Your task to perform on an android device: turn off picture-in-picture Image 0: 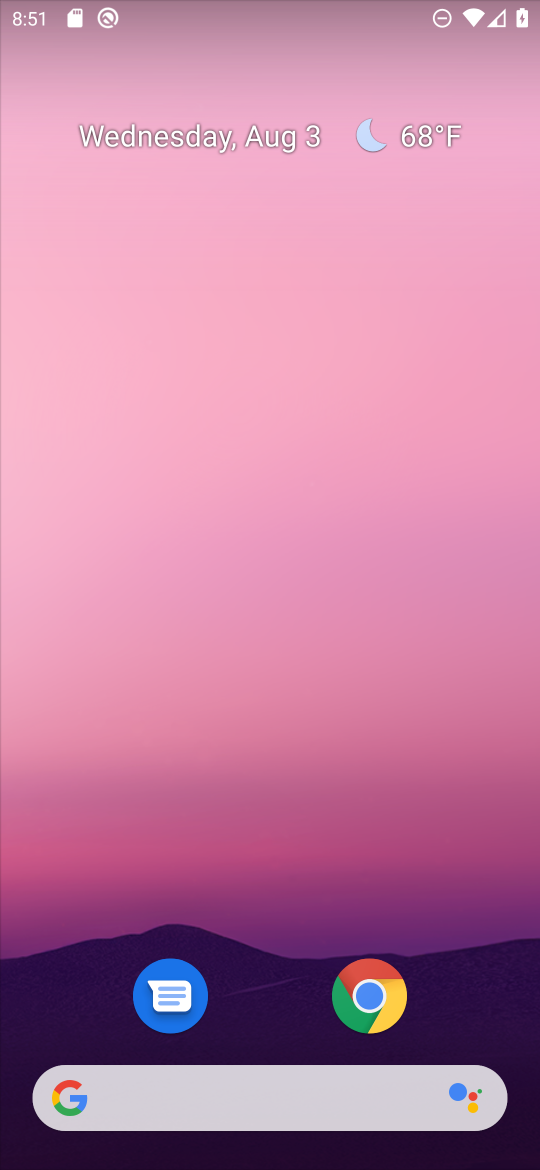
Step 0: click (370, 1006)
Your task to perform on an android device: turn off picture-in-picture Image 1: 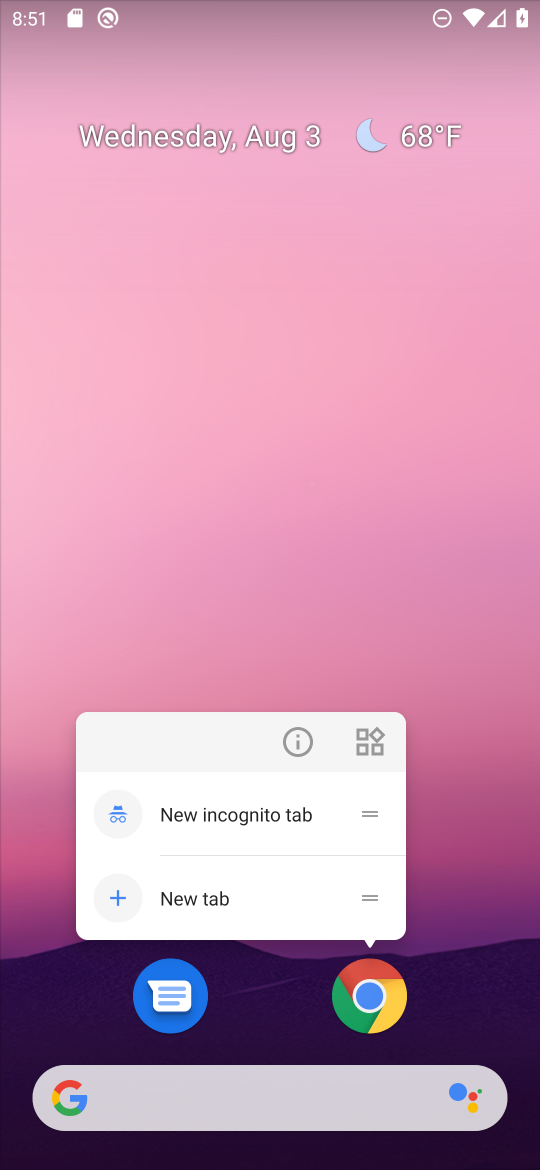
Step 1: click (292, 732)
Your task to perform on an android device: turn off picture-in-picture Image 2: 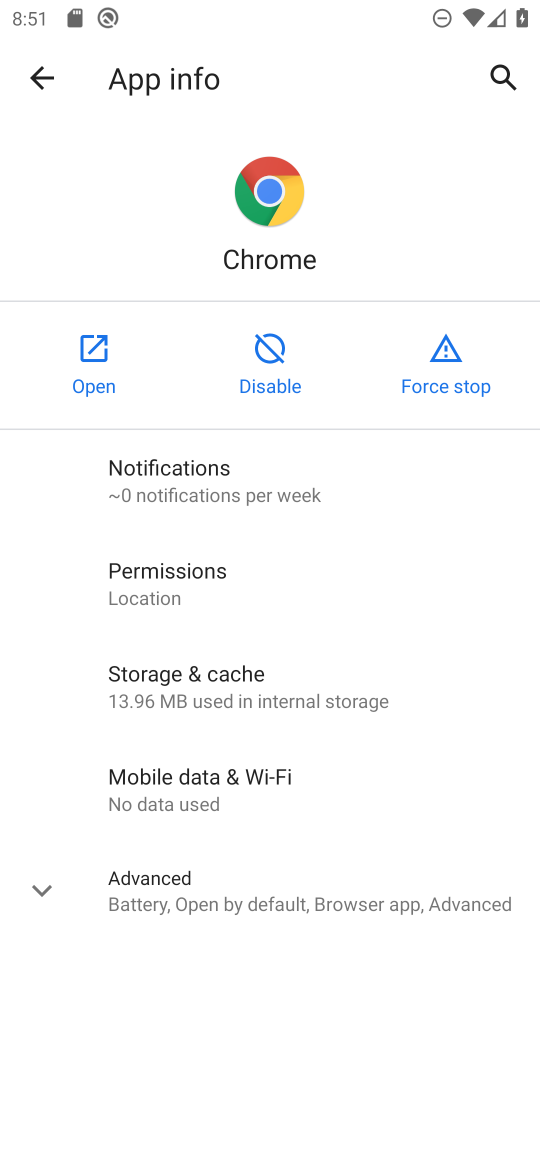
Step 2: click (47, 887)
Your task to perform on an android device: turn off picture-in-picture Image 3: 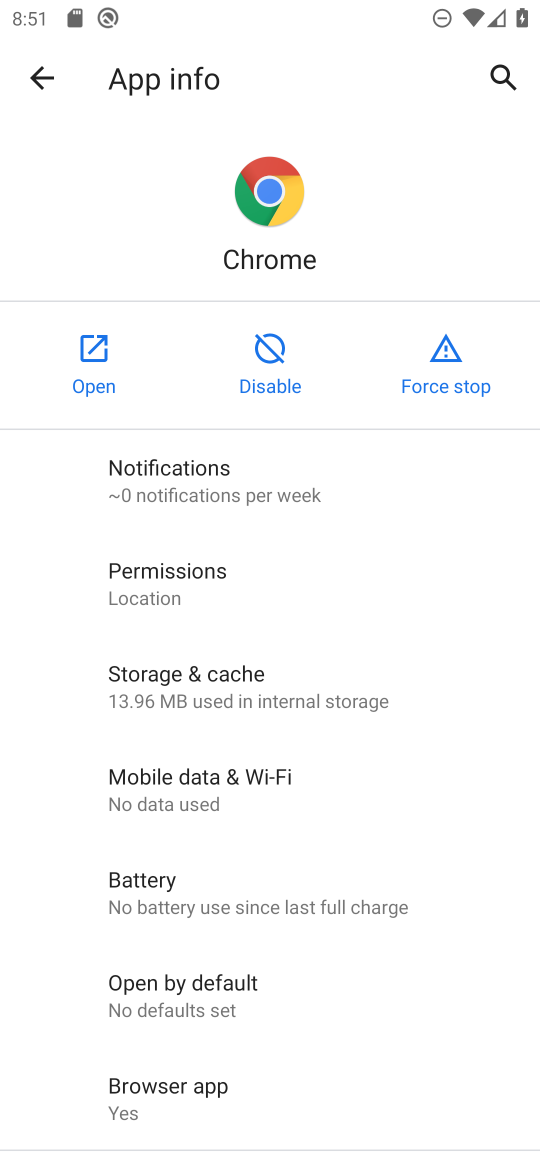
Step 3: drag from (334, 843) to (286, 349)
Your task to perform on an android device: turn off picture-in-picture Image 4: 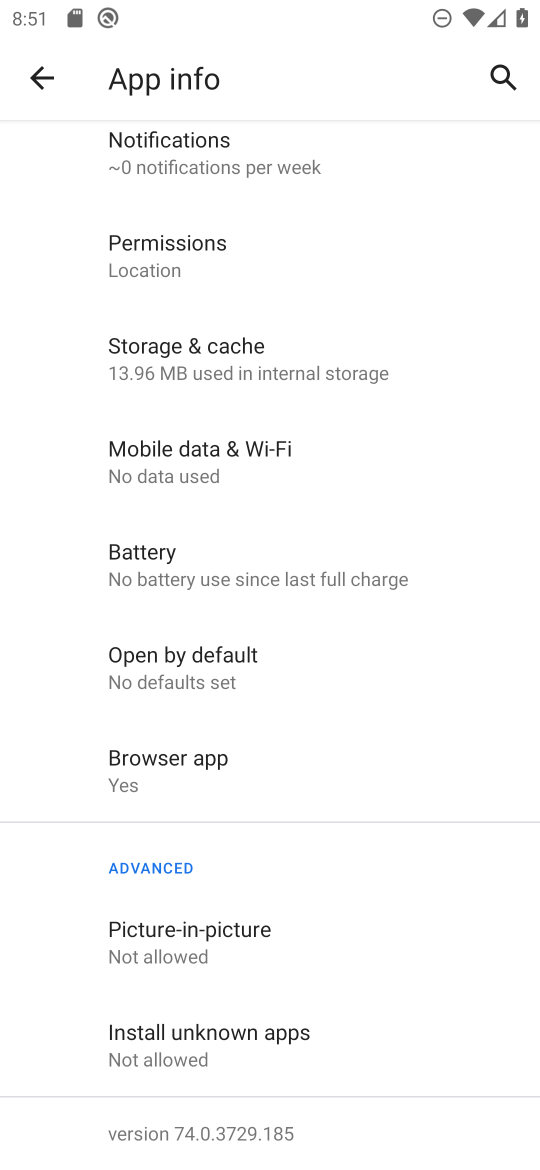
Step 4: click (249, 947)
Your task to perform on an android device: turn off picture-in-picture Image 5: 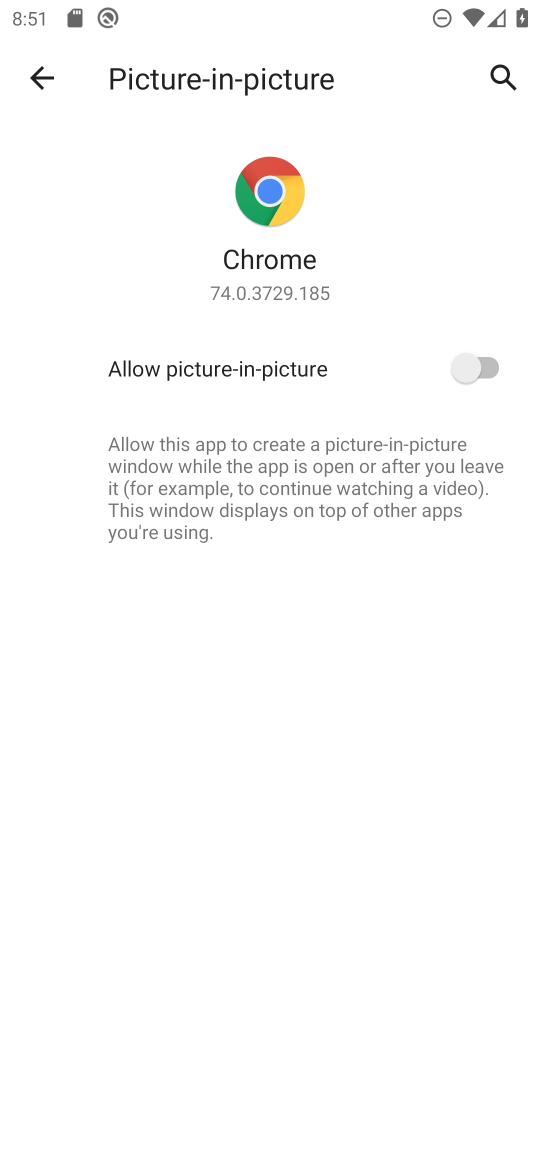
Step 5: task complete